Your task to perform on an android device: turn off wifi Image 0: 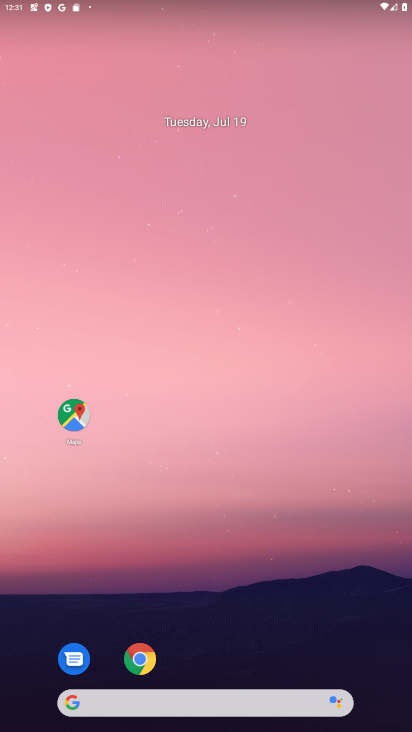
Step 0: drag from (198, 702) to (201, 107)
Your task to perform on an android device: turn off wifi Image 1: 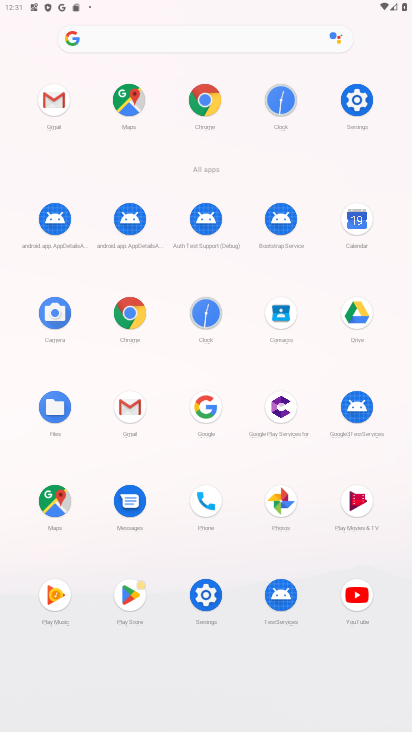
Step 1: click (358, 100)
Your task to perform on an android device: turn off wifi Image 2: 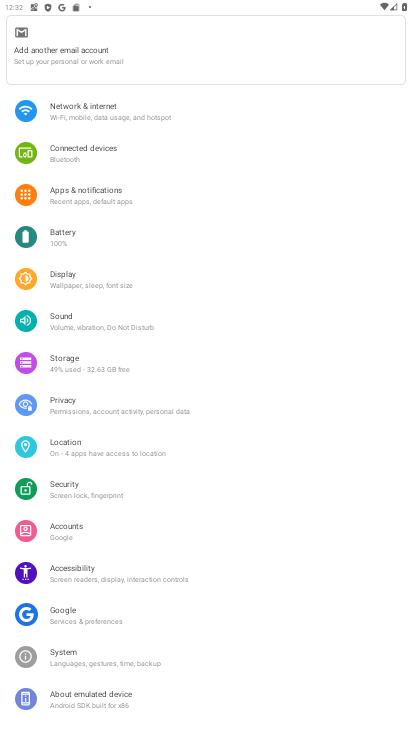
Step 2: click (83, 113)
Your task to perform on an android device: turn off wifi Image 3: 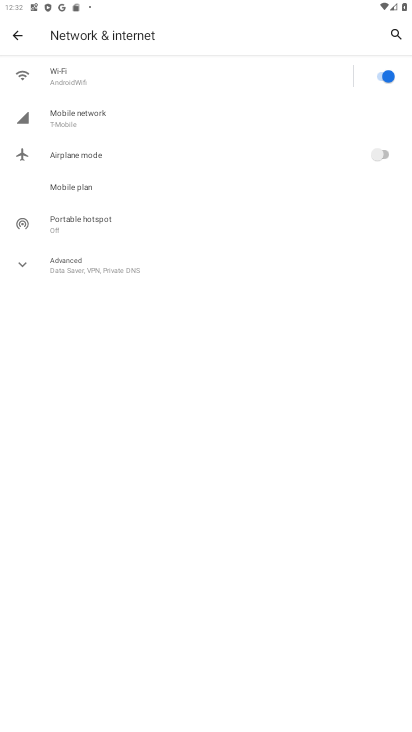
Step 3: click (381, 75)
Your task to perform on an android device: turn off wifi Image 4: 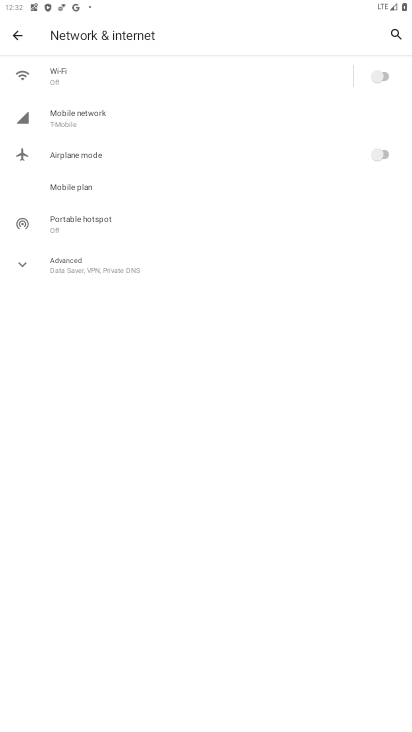
Step 4: task complete